Your task to perform on an android device: Open accessibility settings Image 0: 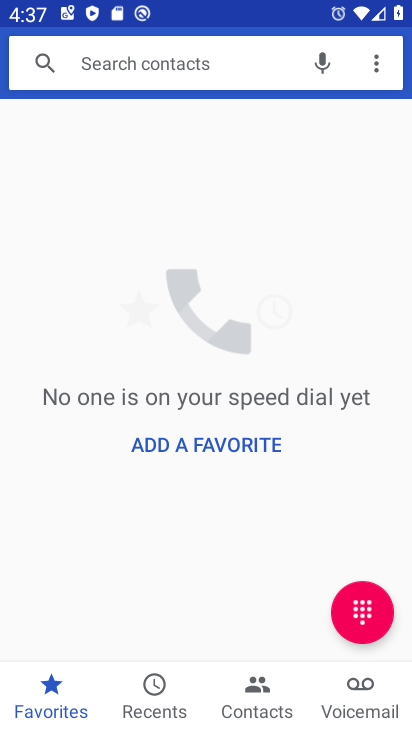
Step 0: press home button
Your task to perform on an android device: Open accessibility settings Image 1: 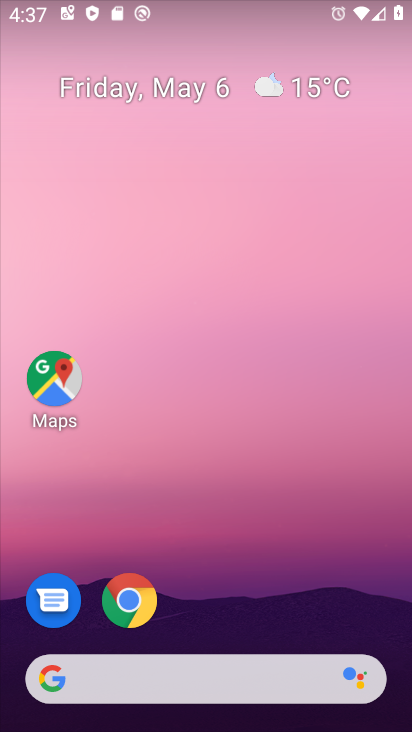
Step 1: drag from (225, 590) to (278, 83)
Your task to perform on an android device: Open accessibility settings Image 2: 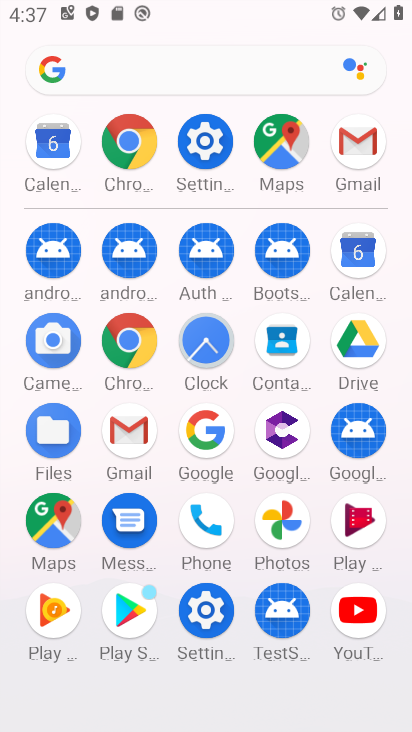
Step 2: click (199, 622)
Your task to perform on an android device: Open accessibility settings Image 3: 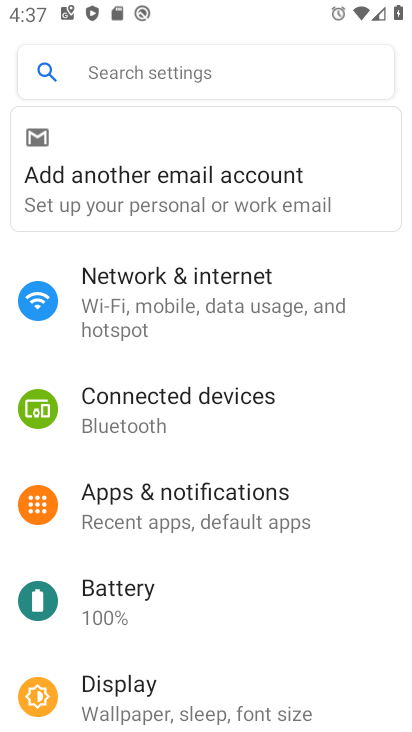
Step 3: drag from (185, 656) to (248, 218)
Your task to perform on an android device: Open accessibility settings Image 4: 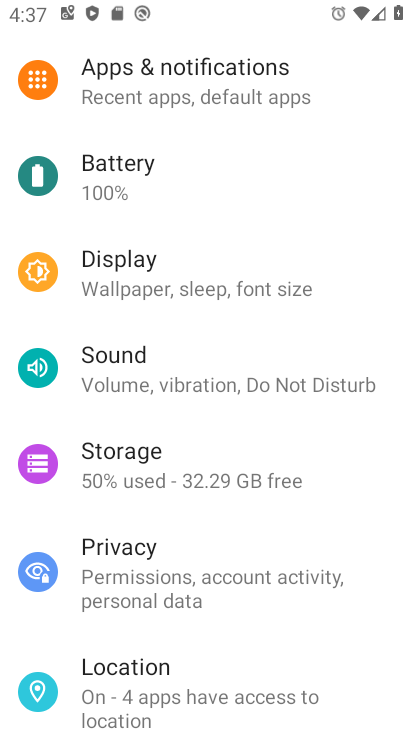
Step 4: drag from (182, 659) to (262, 200)
Your task to perform on an android device: Open accessibility settings Image 5: 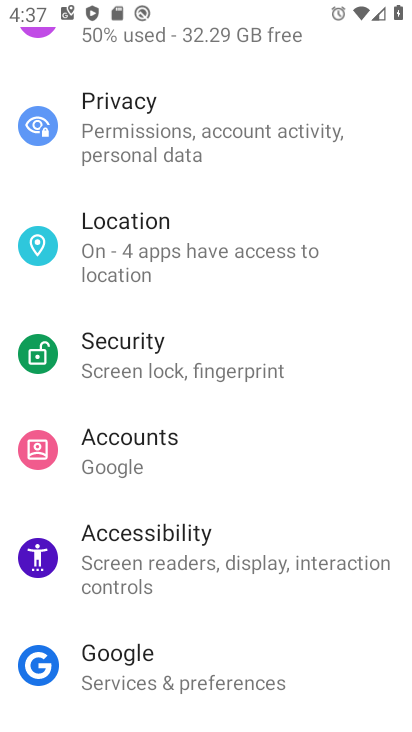
Step 5: click (147, 570)
Your task to perform on an android device: Open accessibility settings Image 6: 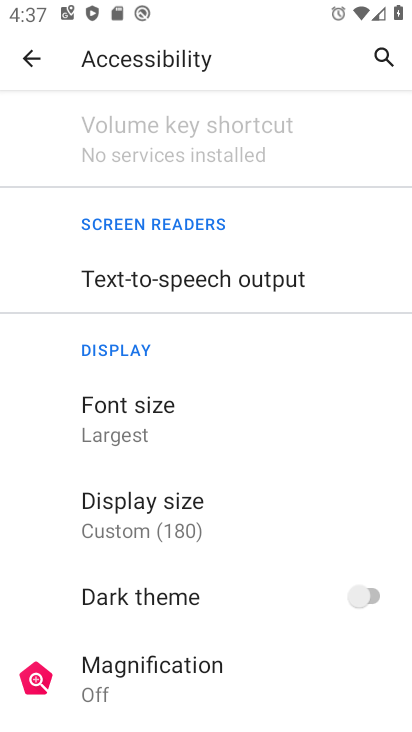
Step 6: task complete